Your task to perform on an android device: Open calendar and show me the fourth week of next month Image 0: 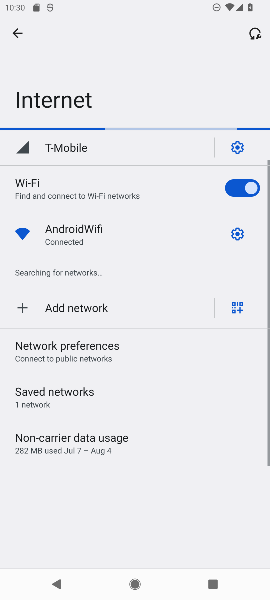
Step 0: click (240, 64)
Your task to perform on an android device: Open calendar and show me the fourth week of next month Image 1: 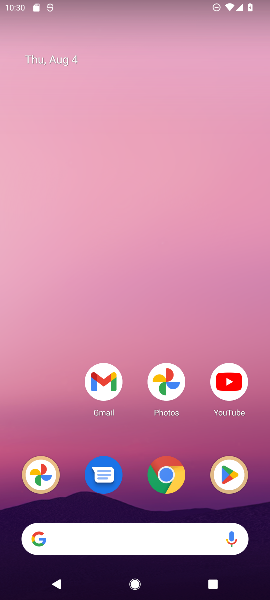
Step 1: drag from (172, 421) to (228, 130)
Your task to perform on an android device: Open calendar and show me the fourth week of next month Image 2: 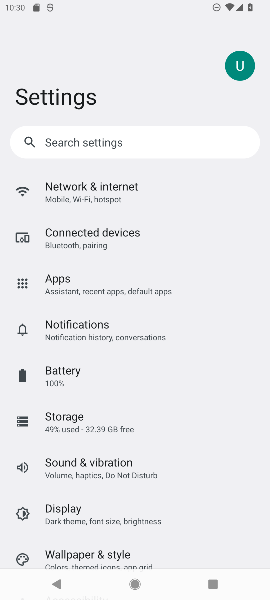
Step 2: drag from (126, 518) to (148, 196)
Your task to perform on an android device: Open calendar and show me the fourth week of next month Image 3: 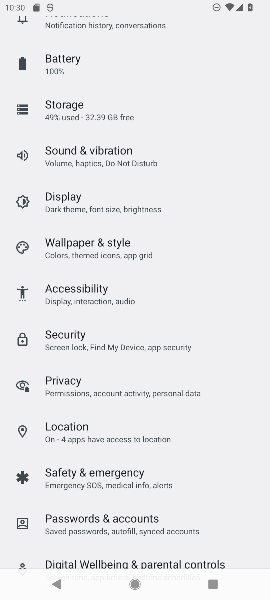
Step 3: press home button
Your task to perform on an android device: Open calendar and show me the fourth week of next month Image 4: 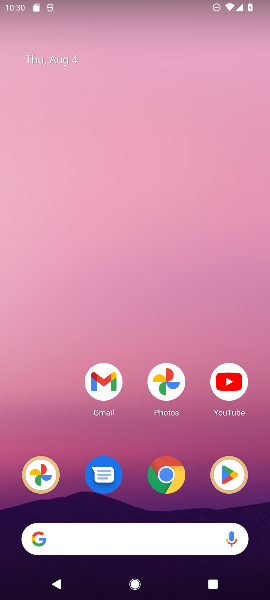
Step 4: drag from (126, 500) to (155, 191)
Your task to perform on an android device: Open calendar and show me the fourth week of next month Image 5: 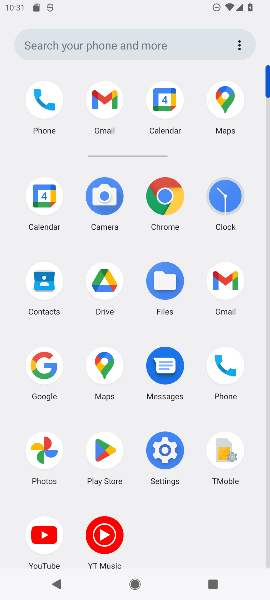
Step 5: click (50, 186)
Your task to perform on an android device: Open calendar and show me the fourth week of next month Image 6: 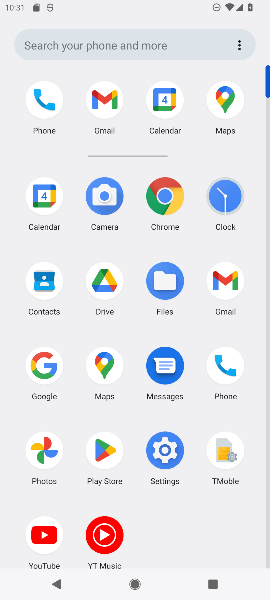
Step 6: click (50, 186)
Your task to perform on an android device: Open calendar and show me the fourth week of next month Image 7: 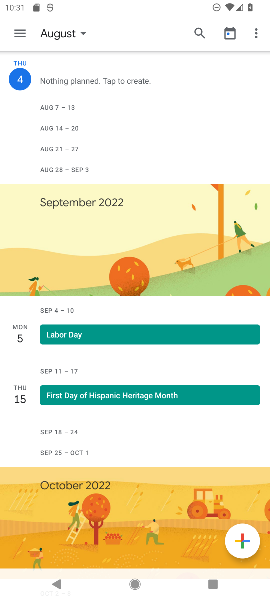
Step 7: click (70, 46)
Your task to perform on an android device: Open calendar and show me the fourth week of next month Image 8: 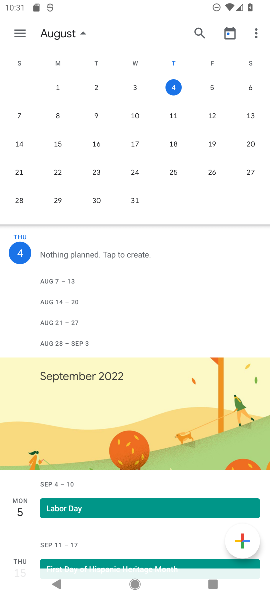
Step 8: drag from (256, 133) to (1, 116)
Your task to perform on an android device: Open calendar and show me the fourth week of next month Image 9: 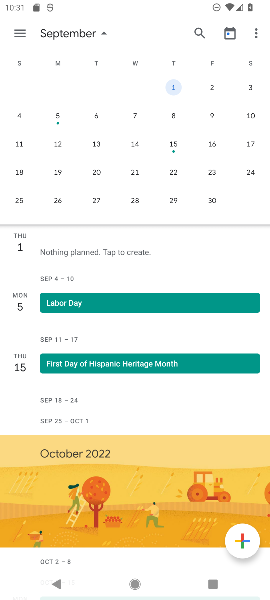
Step 9: click (93, 176)
Your task to perform on an android device: Open calendar and show me the fourth week of next month Image 10: 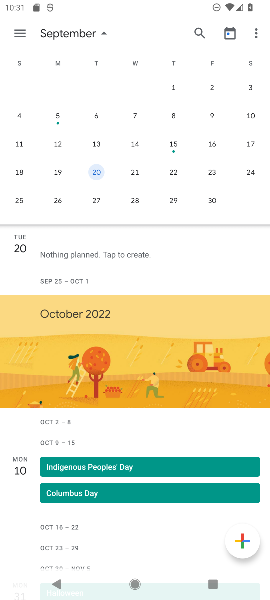
Step 10: task complete